Your task to perform on an android device: check battery use Image 0: 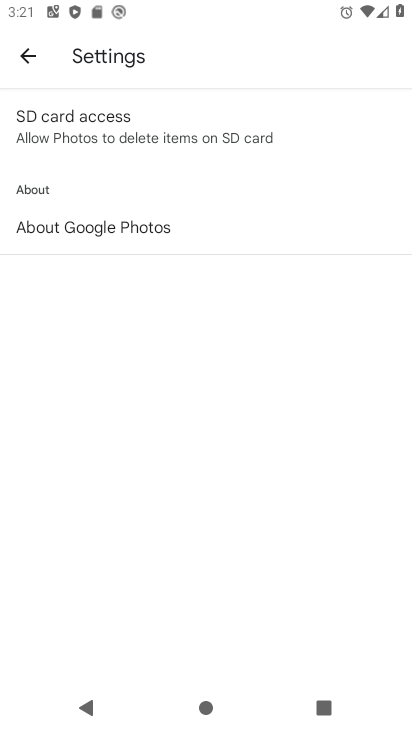
Step 0: press back button
Your task to perform on an android device: check battery use Image 1: 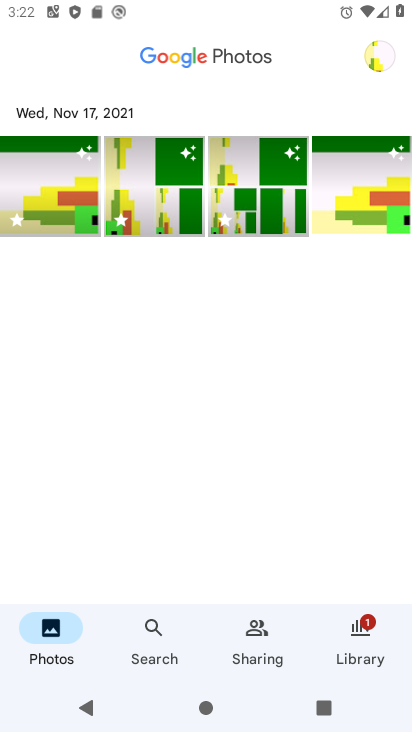
Step 1: press back button
Your task to perform on an android device: check battery use Image 2: 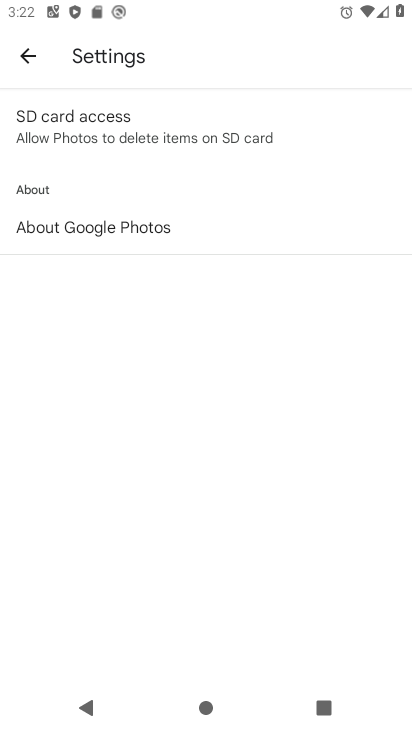
Step 2: press back button
Your task to perform on an android device: check battery use Image 3: 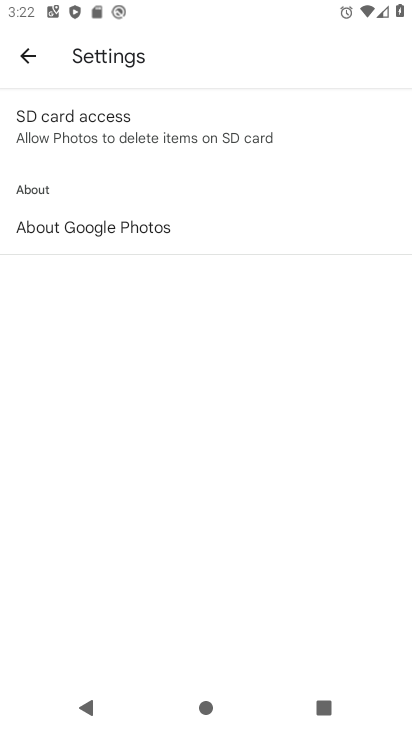
Step 3: press back button
Your task to perform on an android device: check battery use Image 4: 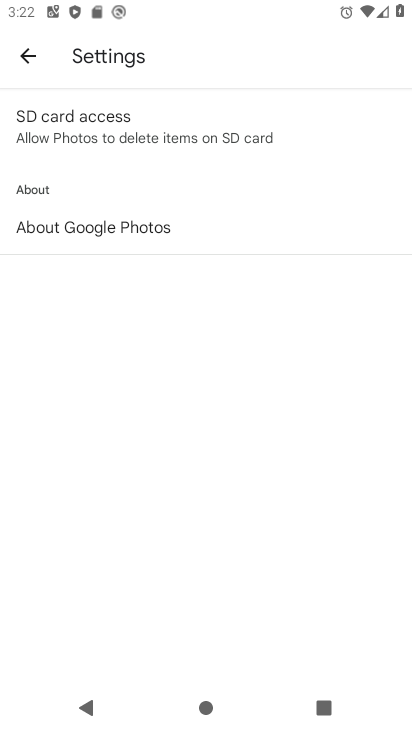
Step 4: press home button
Your task to perform on an android device: check battery use Image 5: 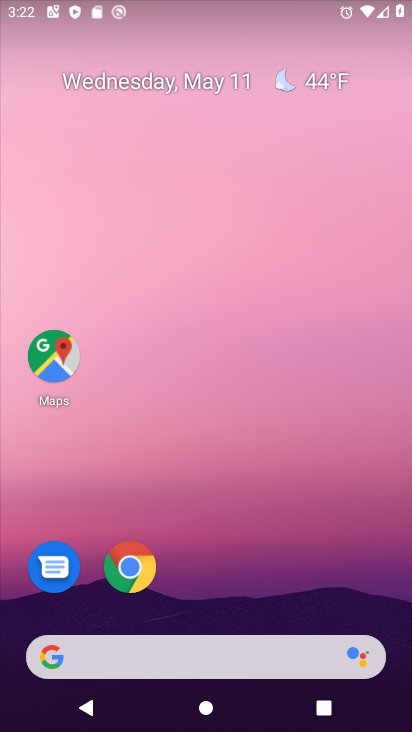
Step 5: drag from (272, 560) to (249, 0)
Your task to perform on an android device: check battery use Image 6: 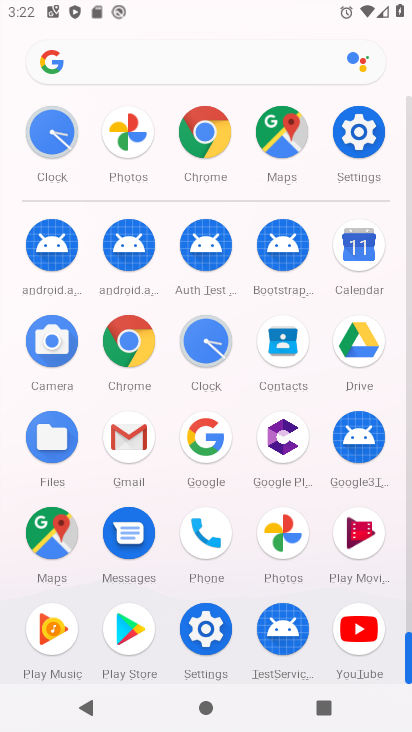
Step 6: click (359, 130)
Your task to perform on an android device: check battery use Image 7: 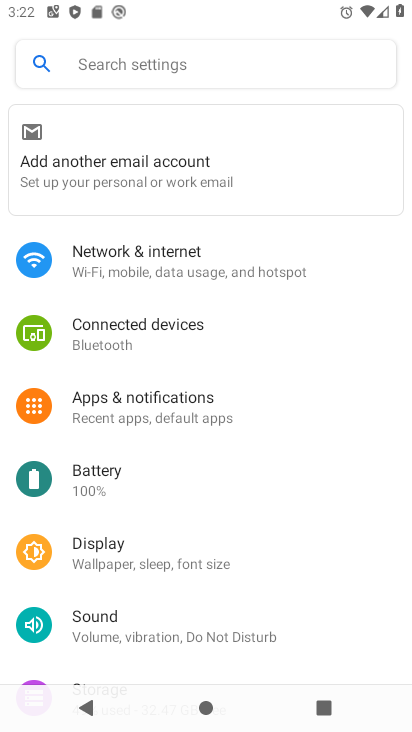
Step 7: drag from (272, 531) to (269, 161)
Your task to perform on an android device: check battery use Image 8: 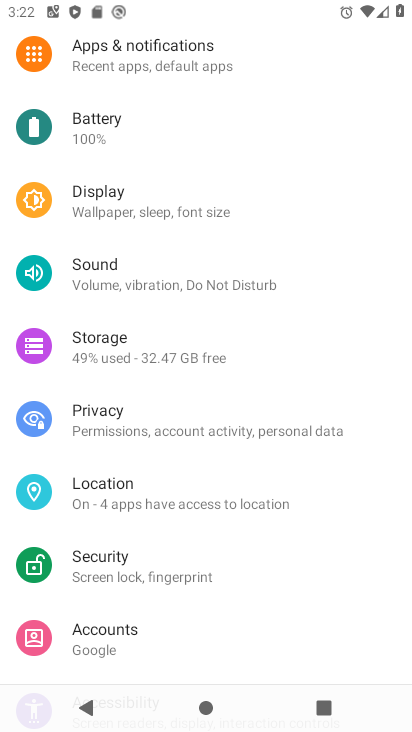
Step 8: drag from (231, 507) to (263, 215)
Your task to perform on an android device: check battery use Image 9: 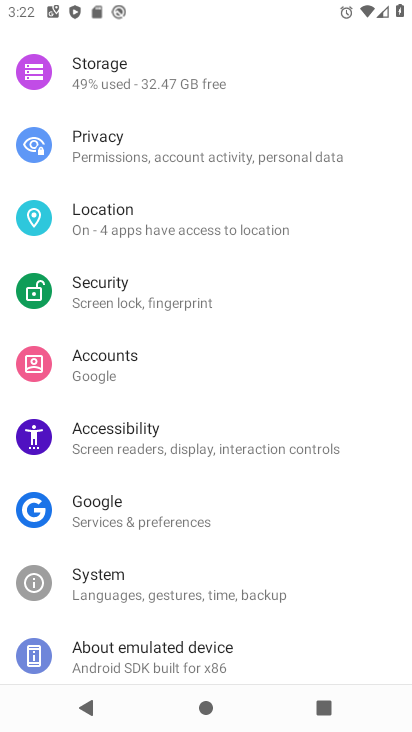
Step 9: drag from (238, 482) to (270, 92)
Your task to perform on an android device: check battery use Image 10: 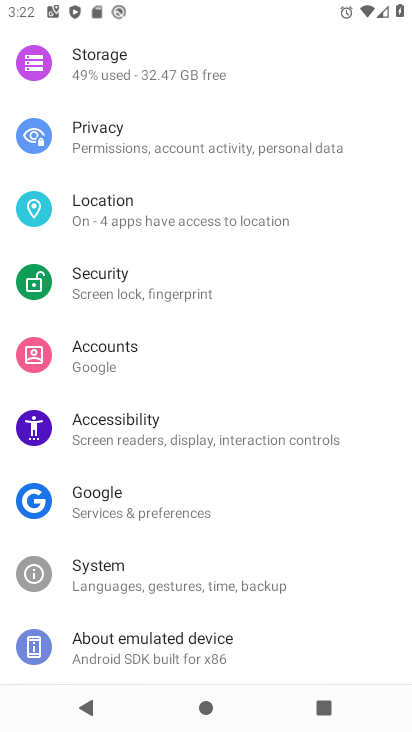
Step 10: drag from (210, 224) to (201, 588)
Your task to perform on an android device: check battery use Image 11: 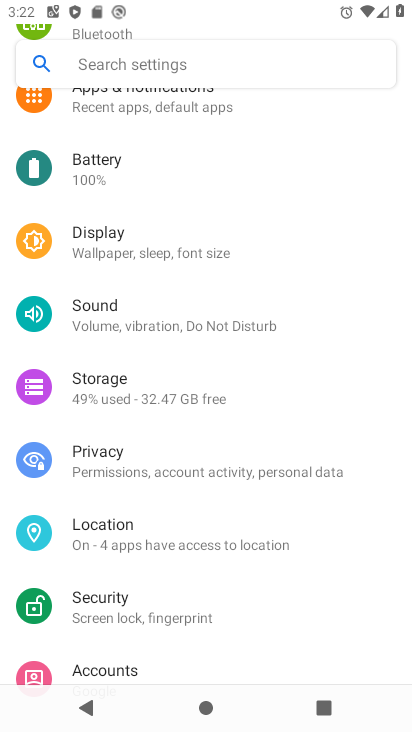
Step 11: drag from (218, 185) to (225, 532)
Your task to perform on an android device: check battery use Image 12: 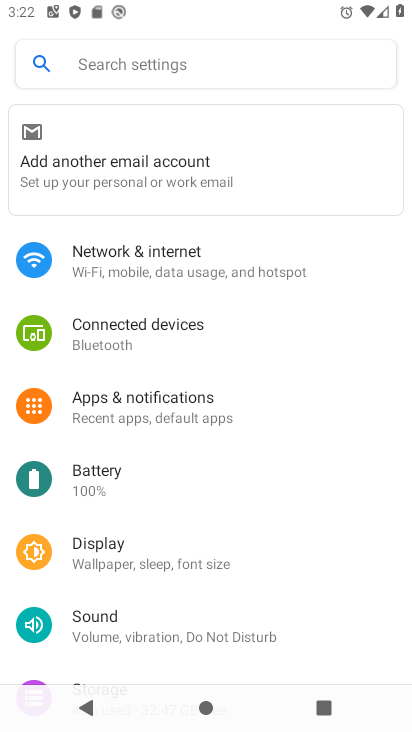
Step 12: click (115, 468)
Your task to perform on an android device: check battery use Image 13: 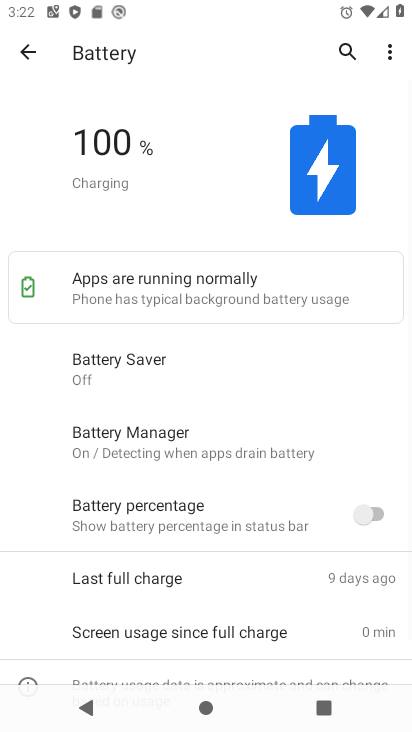
Step 13: task complete